Your task to perform on an android device: Go to Yahoo.com Image 0: 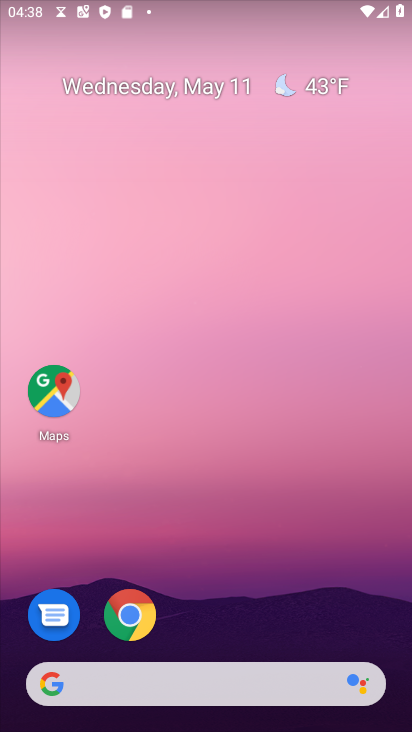
Step 0: drag from (236, 560) to (208, 13)
Your task to perform on an android device: Go to Yahoo.com Image 1: 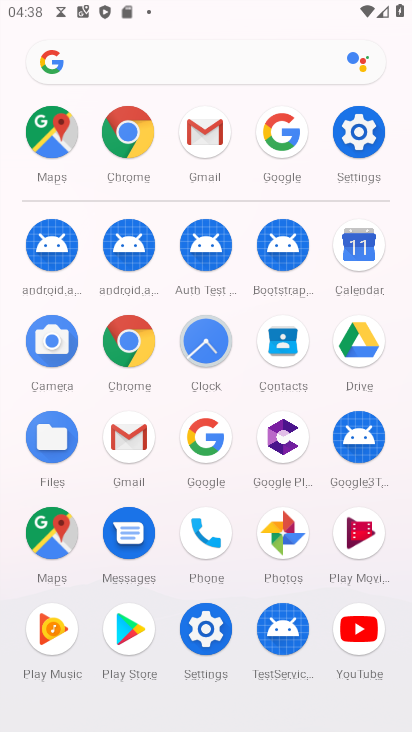
Step 1: click (124, 340)
Your task to perform on an android device: Go to Yahoo.com Image 2: 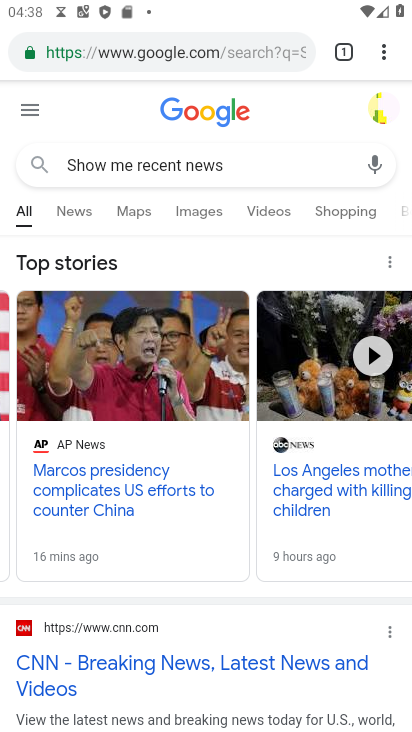
Step 2: click (187, 44)
Your task to perform on an android device: Go to Yahoo.com Image 3: 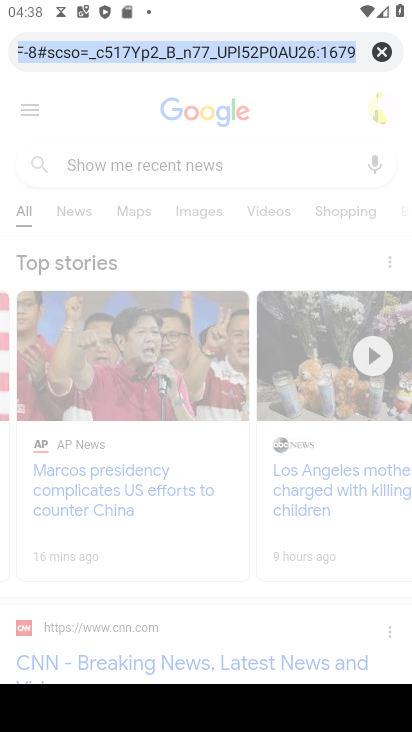
Step 3: click (379, 52)
Your task to perform on an android device: Go to Yahoo.com Image 4: 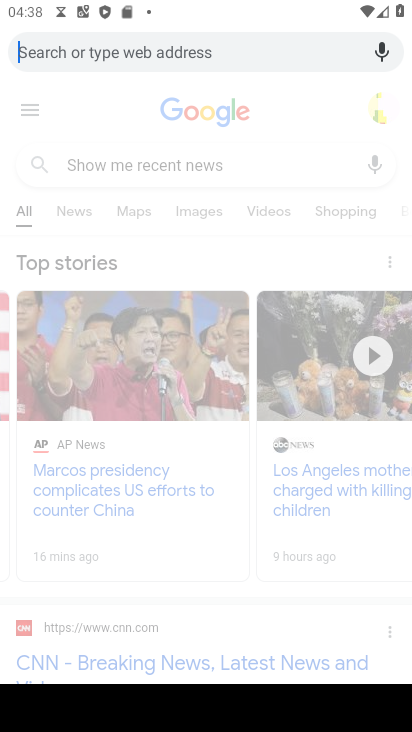
Step 4: type "Yahoo.com"
Your task to perform on an android device: Go to Yahoo.com Image 5: 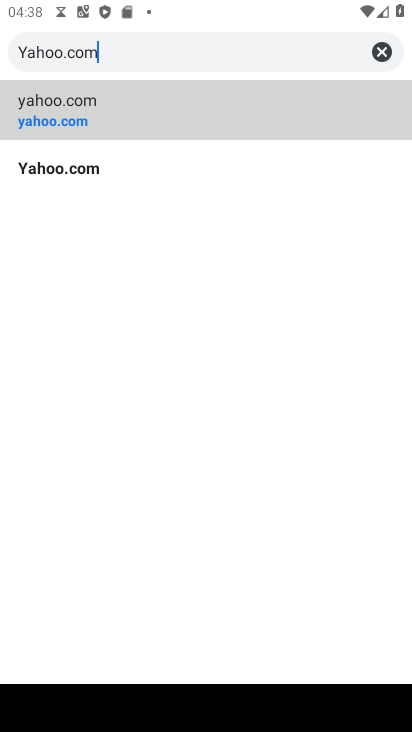
Step 5: type ""
Your task to perform on an android device: Go to Yahoo.com Image 6: 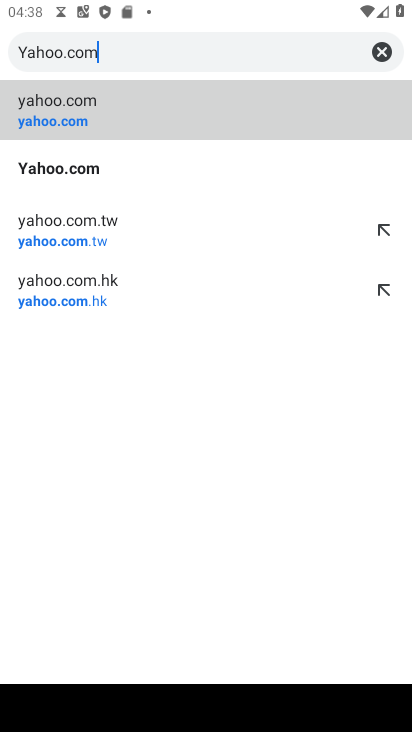
Step 6: click (96, 109)
Your task to perform on an android device: Go to Yahoo.com Image 7: 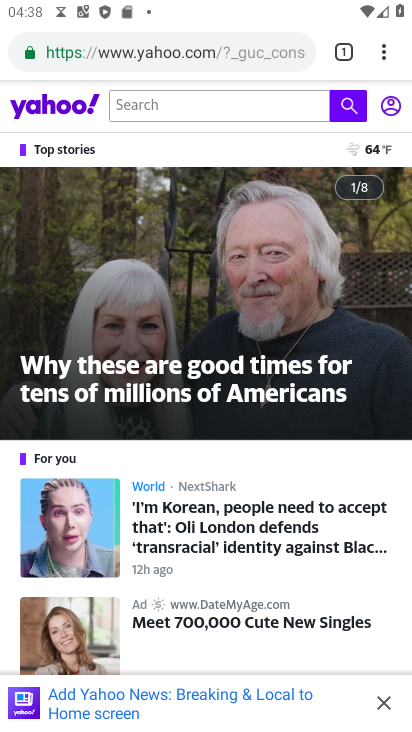
Step 7: task complete